Your task to perform on an android device: change your default location settings in chrome Image 0: 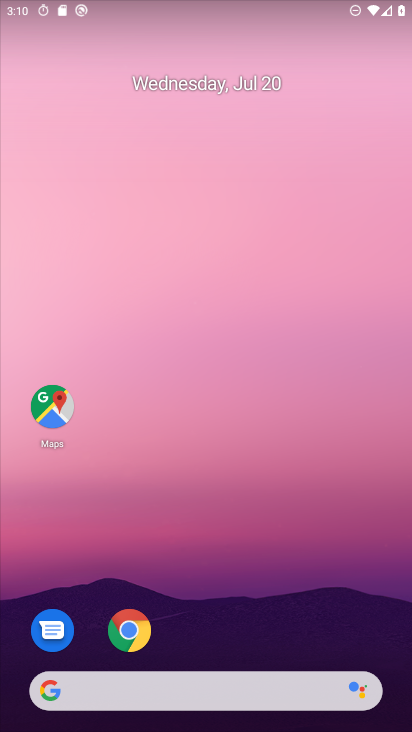
Step 0: click (200, 166)
Your task to perform on an android device: change your default location settings in chrome Image 1: 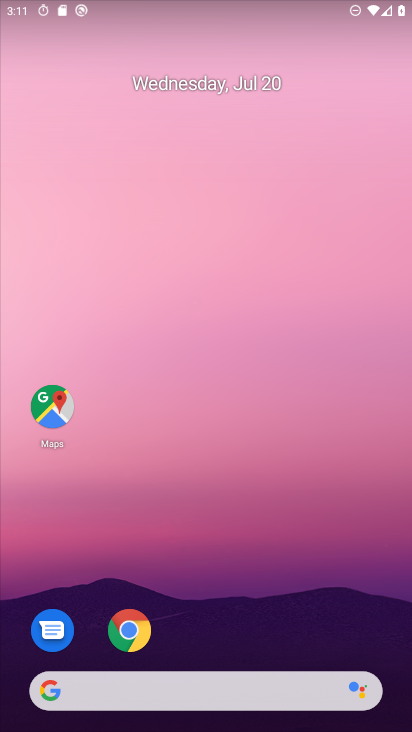
Step 1: drag from (313, 519) to (304, 225)
Your task to perform on an android device: change your default location settings in chrome Image 2: 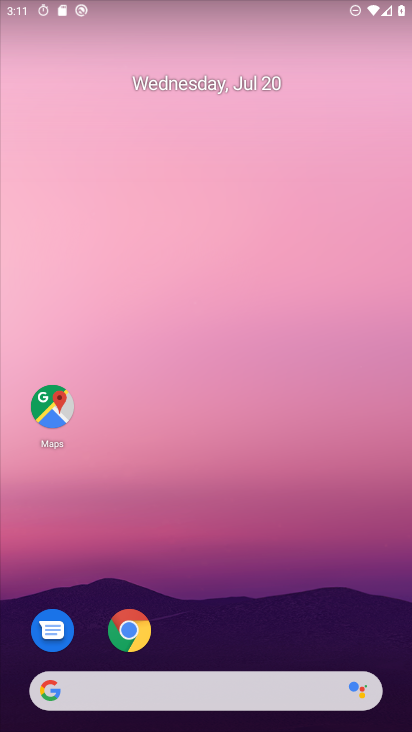
Step 2: drag from (245, 677) to (192, 125)
Your task to perform on an android device: change your default location settings in chrome Image 3: 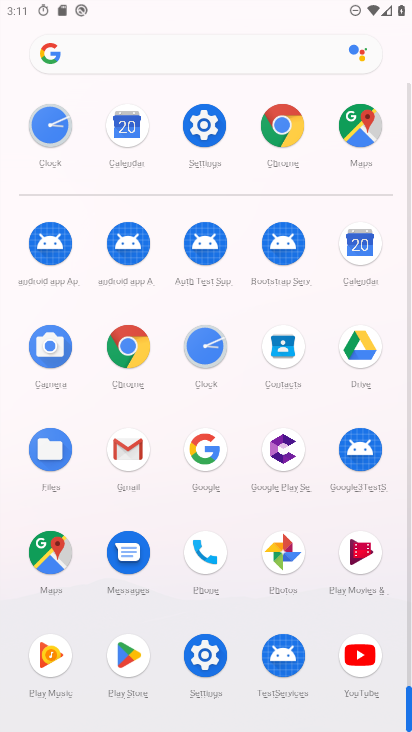
Step 3: click (275, 122)
Your task to perform on an android device: change your default location settings in chrome Image 4: 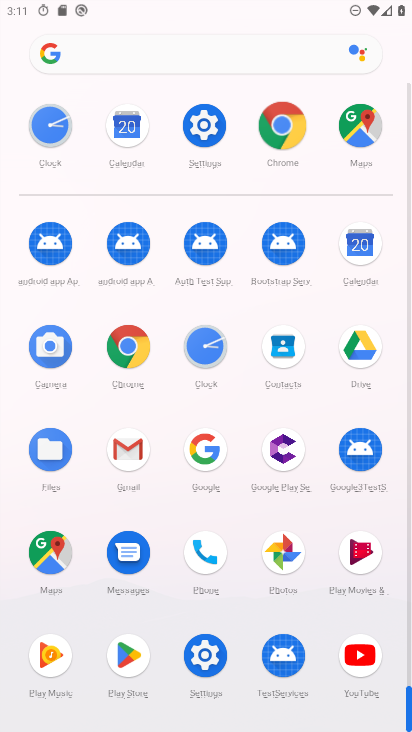
Step 4: click (276, 122)
Your task to perform on an android device: change your default location settings in chrome Image 5: 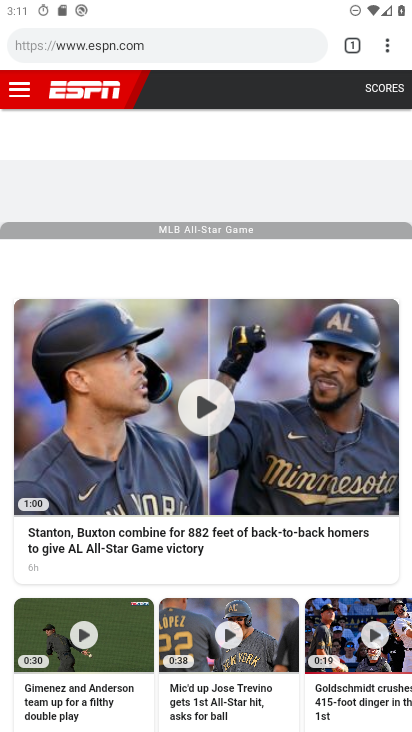
Step 5: drag from (385, 47) to (214, 549)
Your task to perform on an android device: change your default location settings in chrome Image 6: 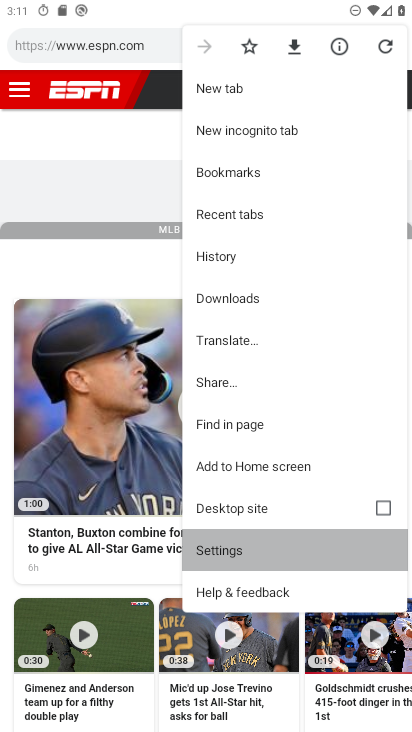
Step 6: click (214, 549)
Your task to perform on an android device: change your default location settings in chrome Image 7: 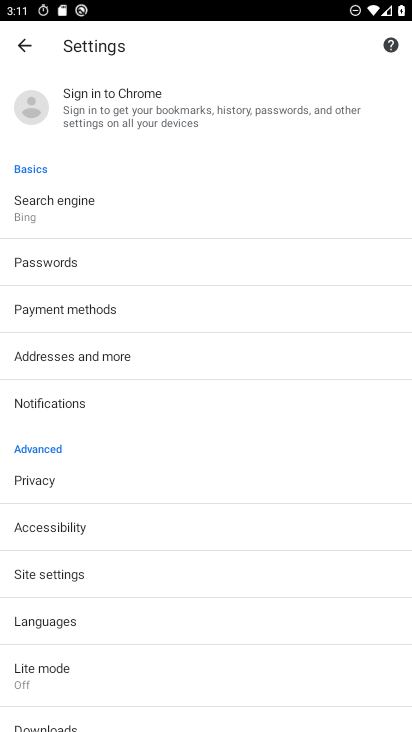
Step 7: click (87, 616)
Your task to perform on an android device: change your default location settings in chrome Image 8: 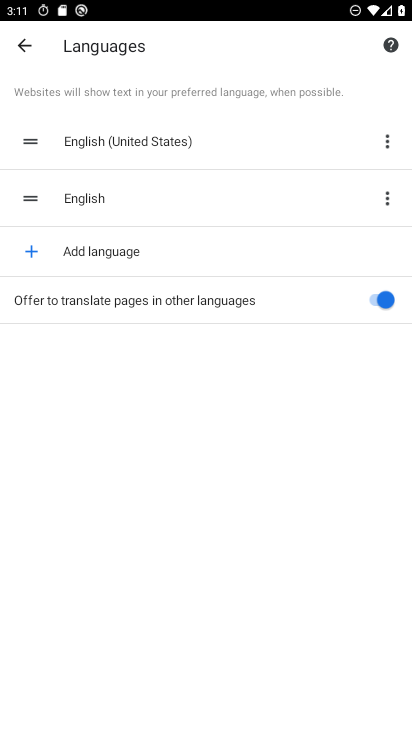
Step 8: click (382, 300)
Your task to perform on an android device: change your default location settings in chrome Image 9: 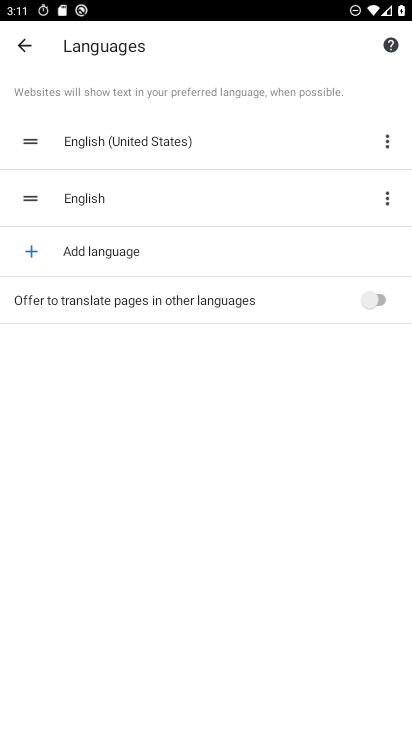
Step 9: click (375, 284)
Your task to perform on an android device: change your default location settings in chrome Image 10: 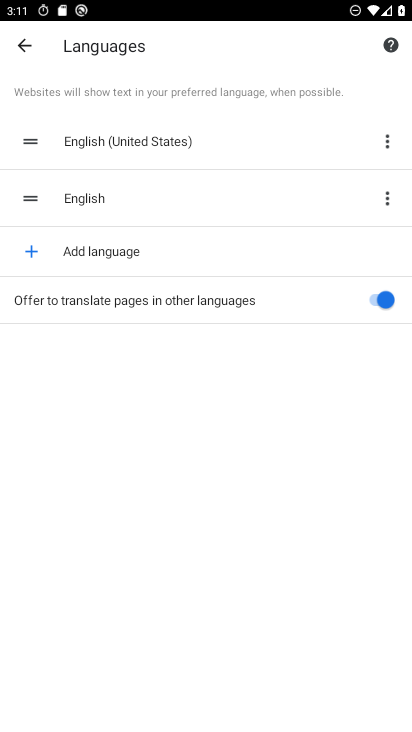
Step 10: task complete